Your task to perform on an android device: Search for "razer nari" on bestbuy, select the first entry, and add it to the cart. Image 0: 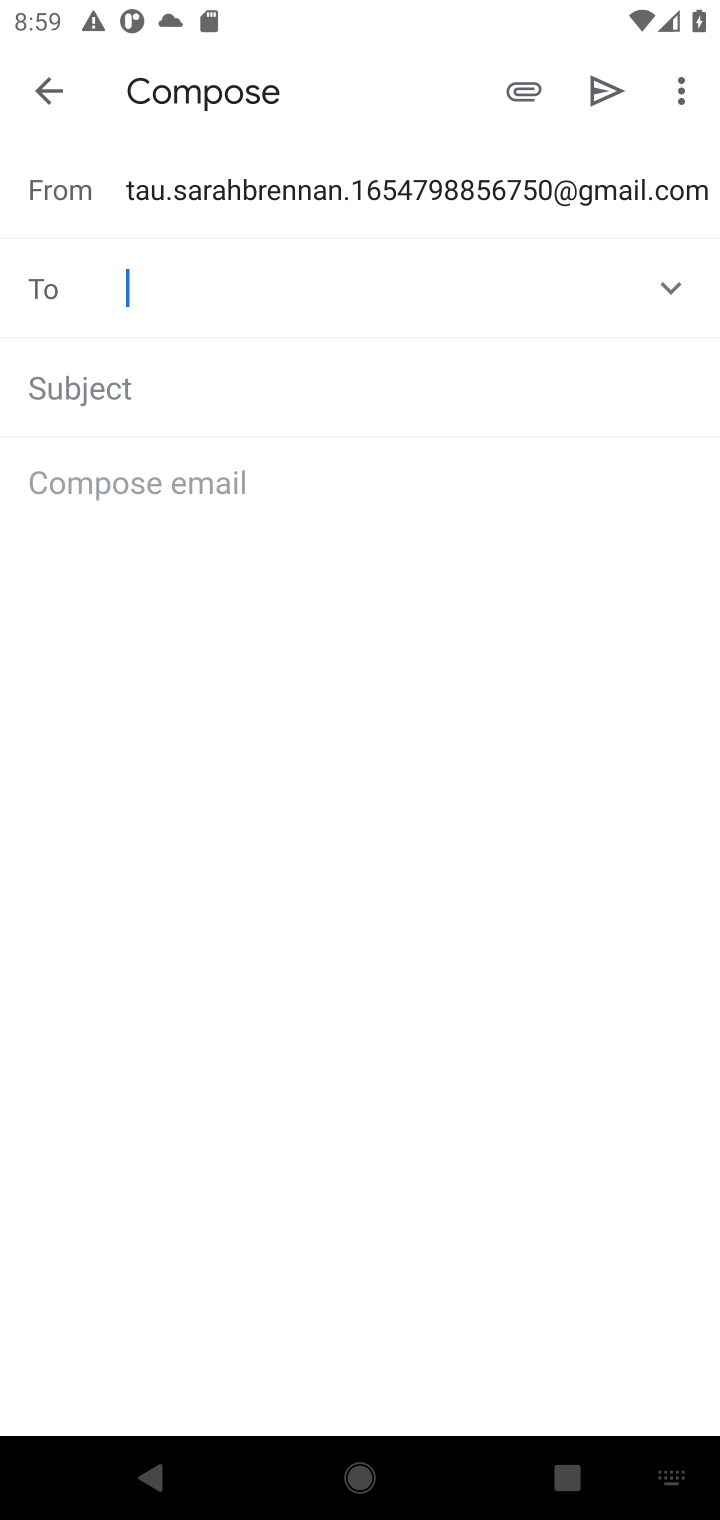
Step 0: press home button
Your task to perform on an android device: Search for "razer nari" on bestbuy, select the first entry, and add it to the cart. Image 1: 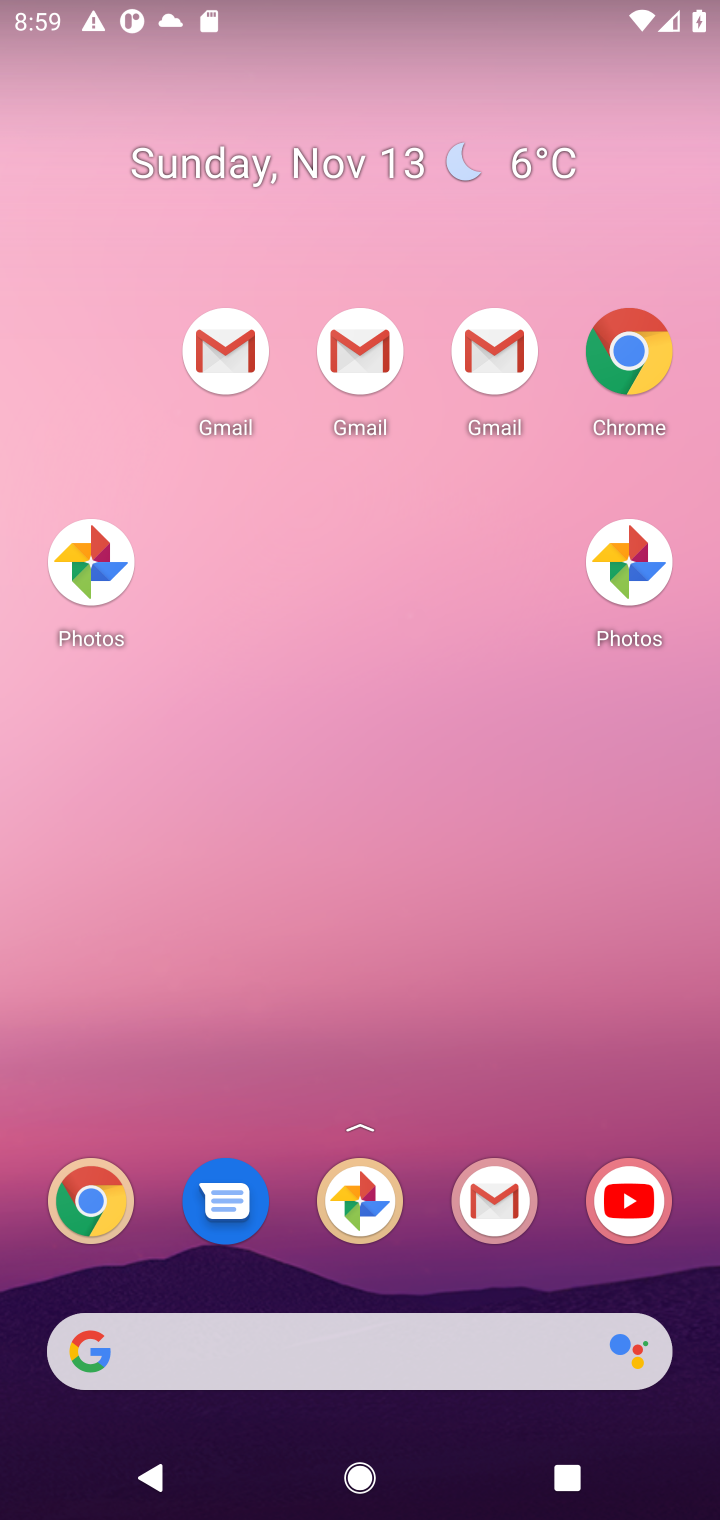
Step 1: drag from (425, 1296) to (405, 298)
Your task to perform on an android device: Search for "razer nari" on bestbuy, select the first entry, and add it to the cart. Image 2: 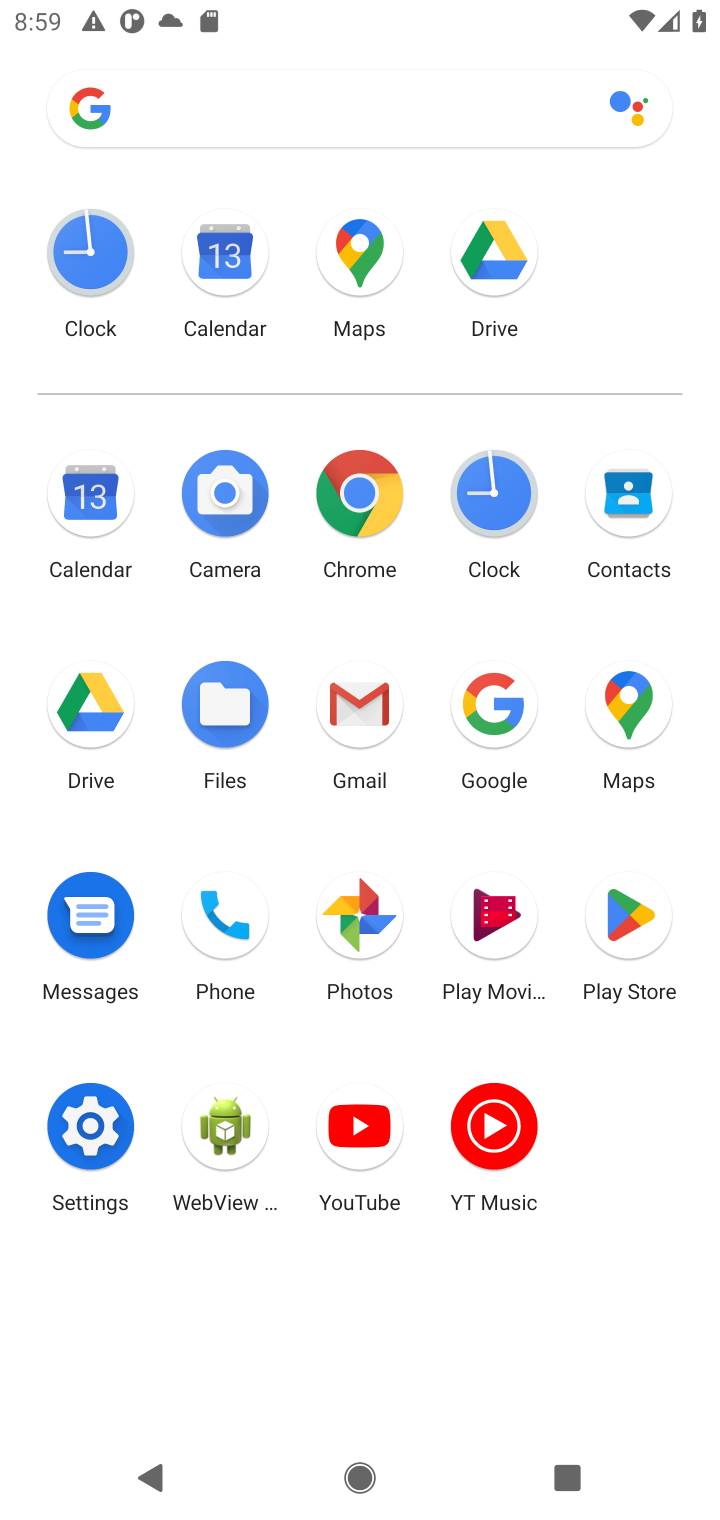
Step 2: click (344, 500)
Your task to perform on an android device: Search for "razer nari" on bestbuy, select the first entry, and add it to the cart. Image 3: 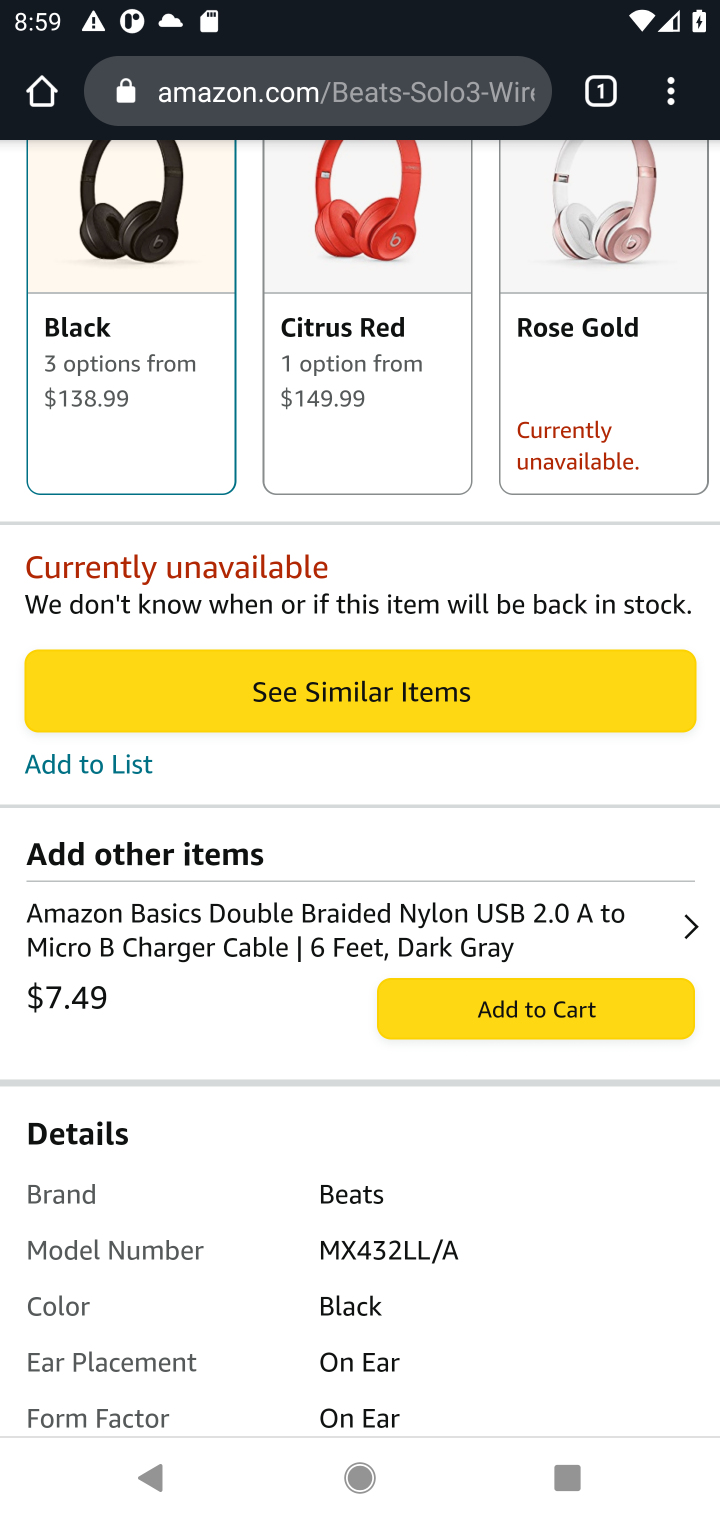
Step 3: drag from (484, 184) to (447, 925)
Your task to perform on an android device: Search for "razer nari" on bestbuy, select the first entry, and add it to the cart. Image 4: 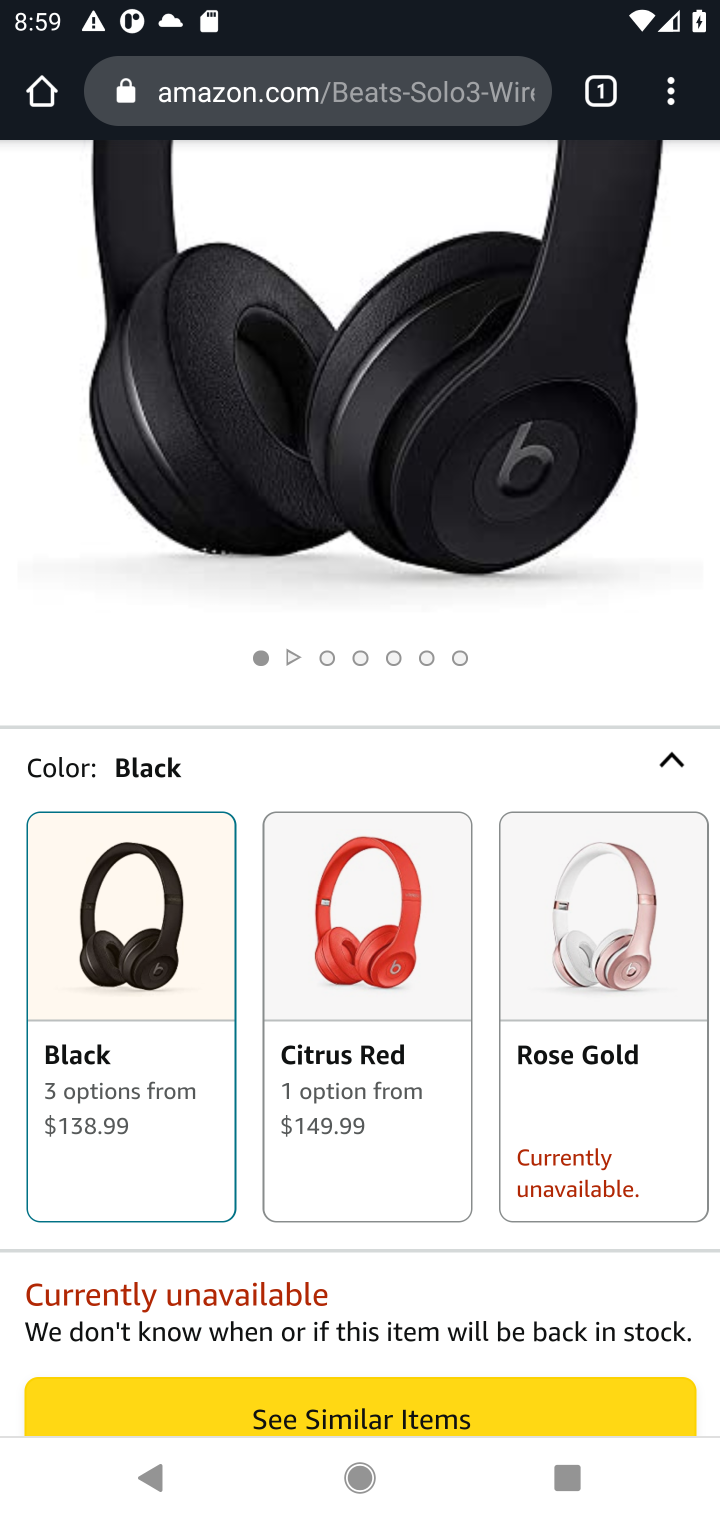
Step 4: click (386, 84)
Your task to perform on an android device: Search for "razer nari" on bestbuy, select the first entry, and add it to the cart. Image 5: 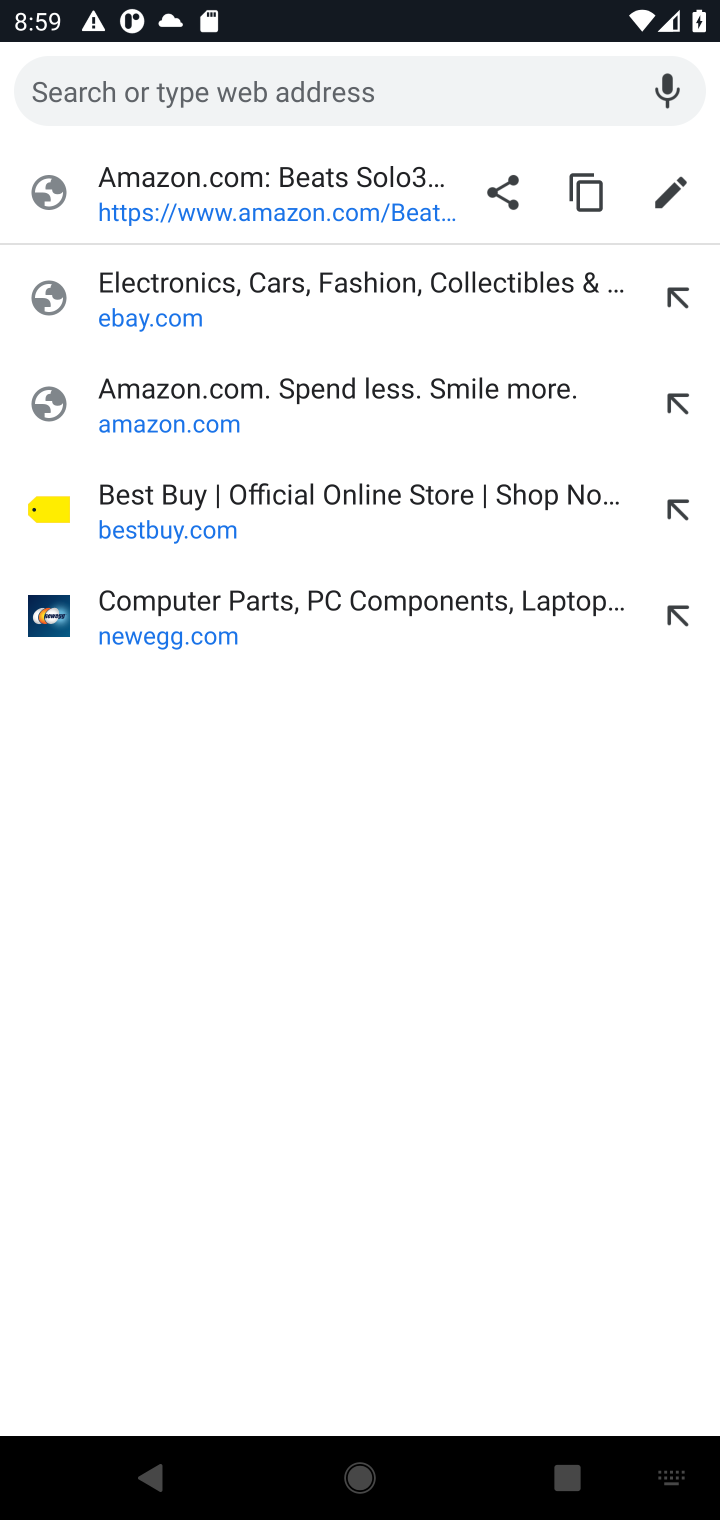
Step 5: type "bestbuy.com"
Your task to perform on an android device: Search for "razer nari" on bestbuy, select the first entry, and add it to the cart. Image 6: 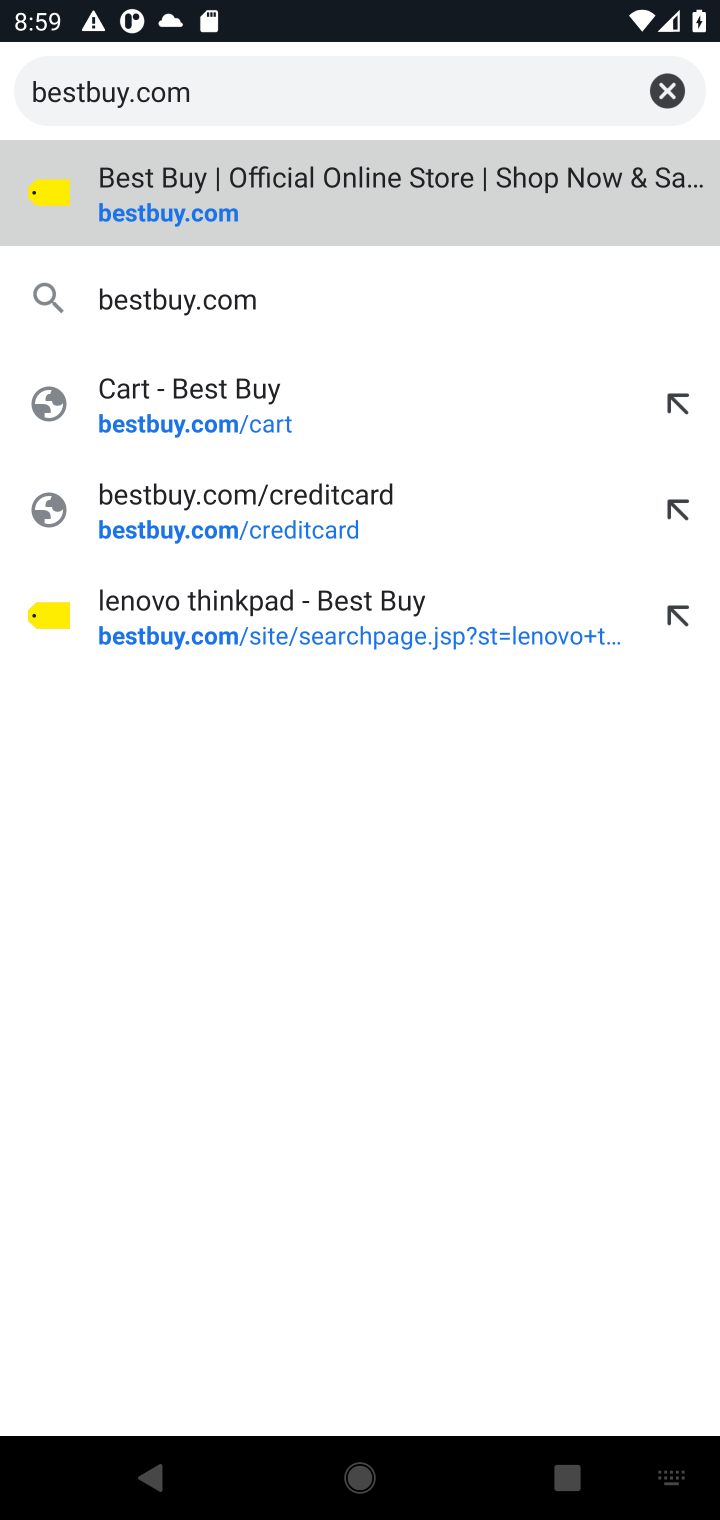
Step 6: press enter
Your task to perform on an android device: Search for "razer nari" on bestbuy, select the first entry, and add it to the cart. Image 7: 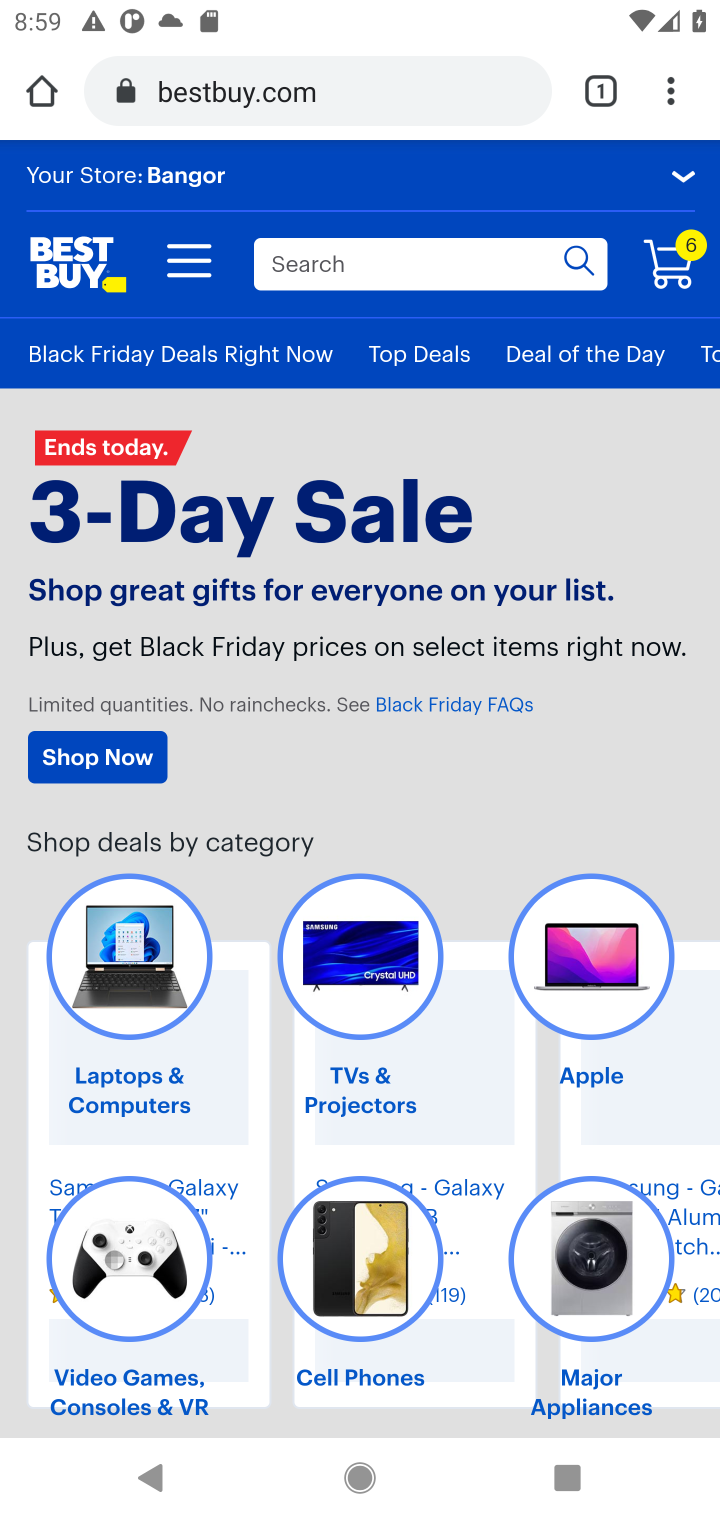
Step 7: click (446, 255)
Your task to perform on an android device: Search for "razer nari" on bestbuy, select the first entry, and add it to the cart. Image 8: 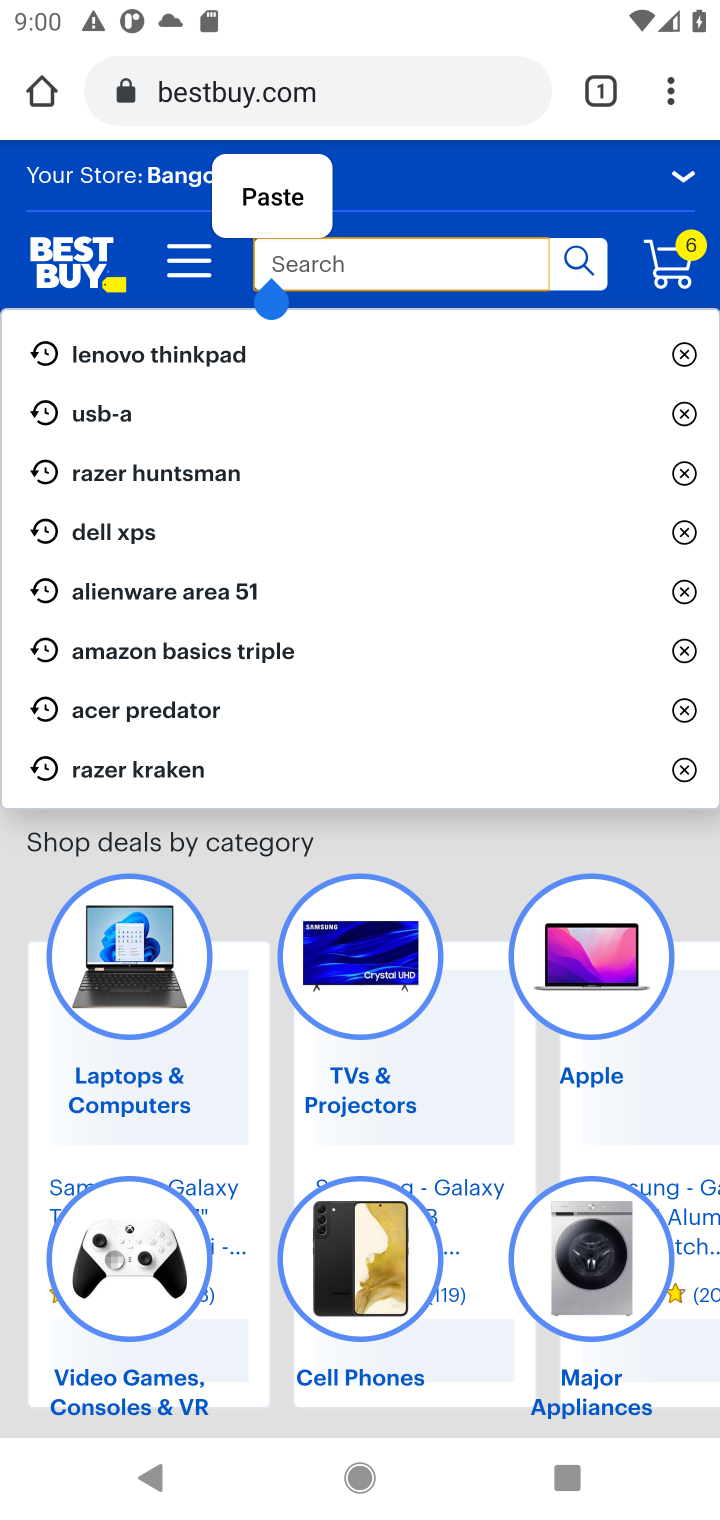
Step 8: type "razer nari"
Your task to perform on an android device: Search for "razer nari" on bestbuy, select the first entry, and add it to the cart. Image 9: 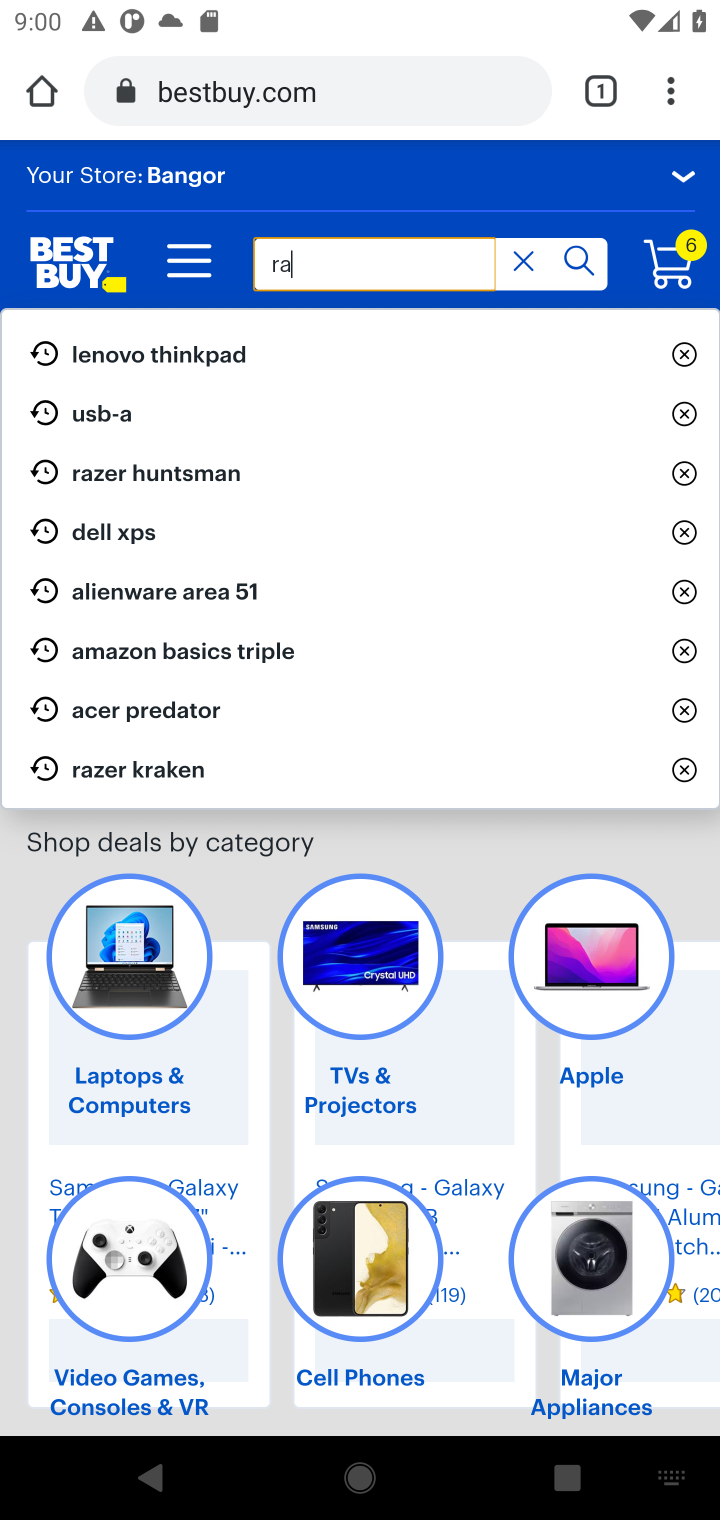
Step 9: press enter
Your task to perform on an android device: Search for "razer nari" on bestbuy, select the first entry, and add it to the cart. Image 10: 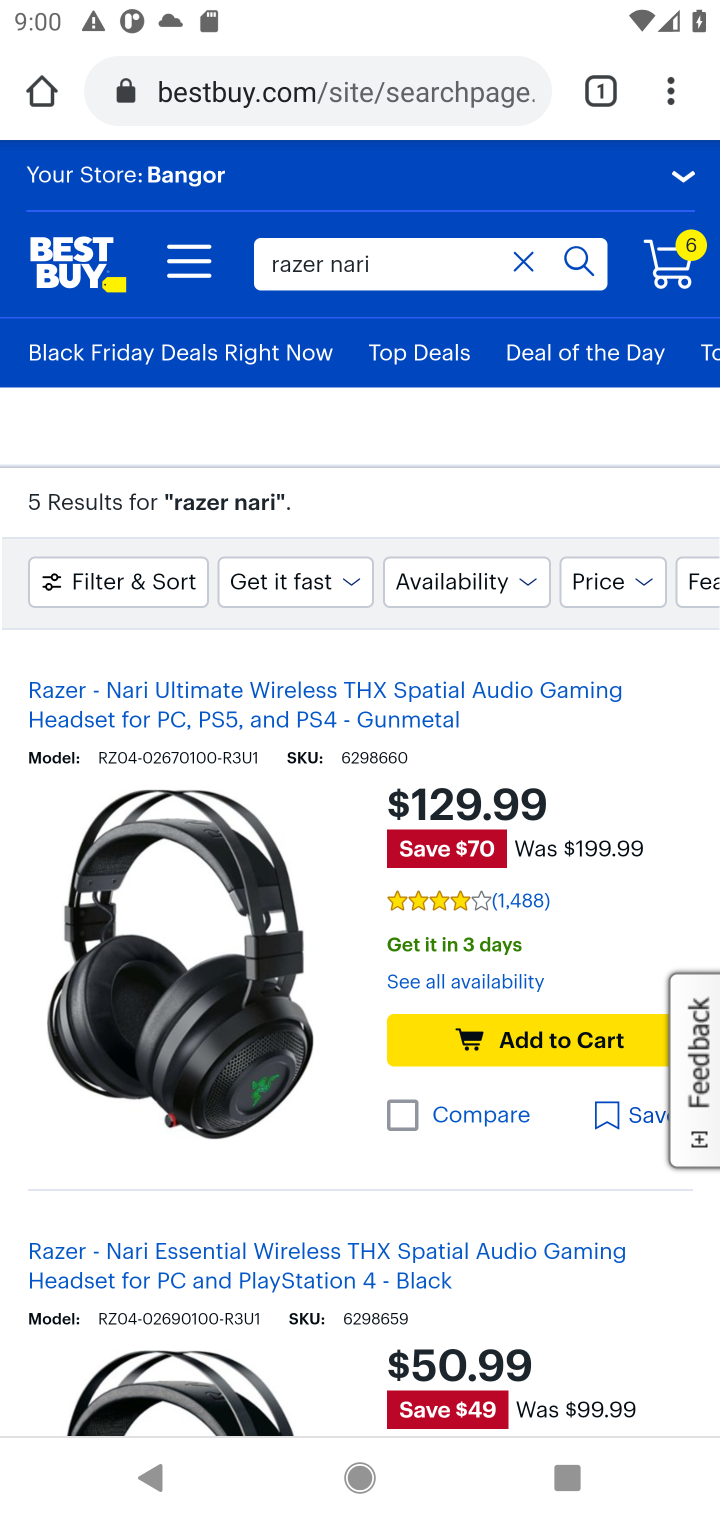
Step 10: click (587, 1039)
Your task to perform on an android device: Search for "razer nari" on bestbuy, select the first entry, and add it to the cart. Image 11: 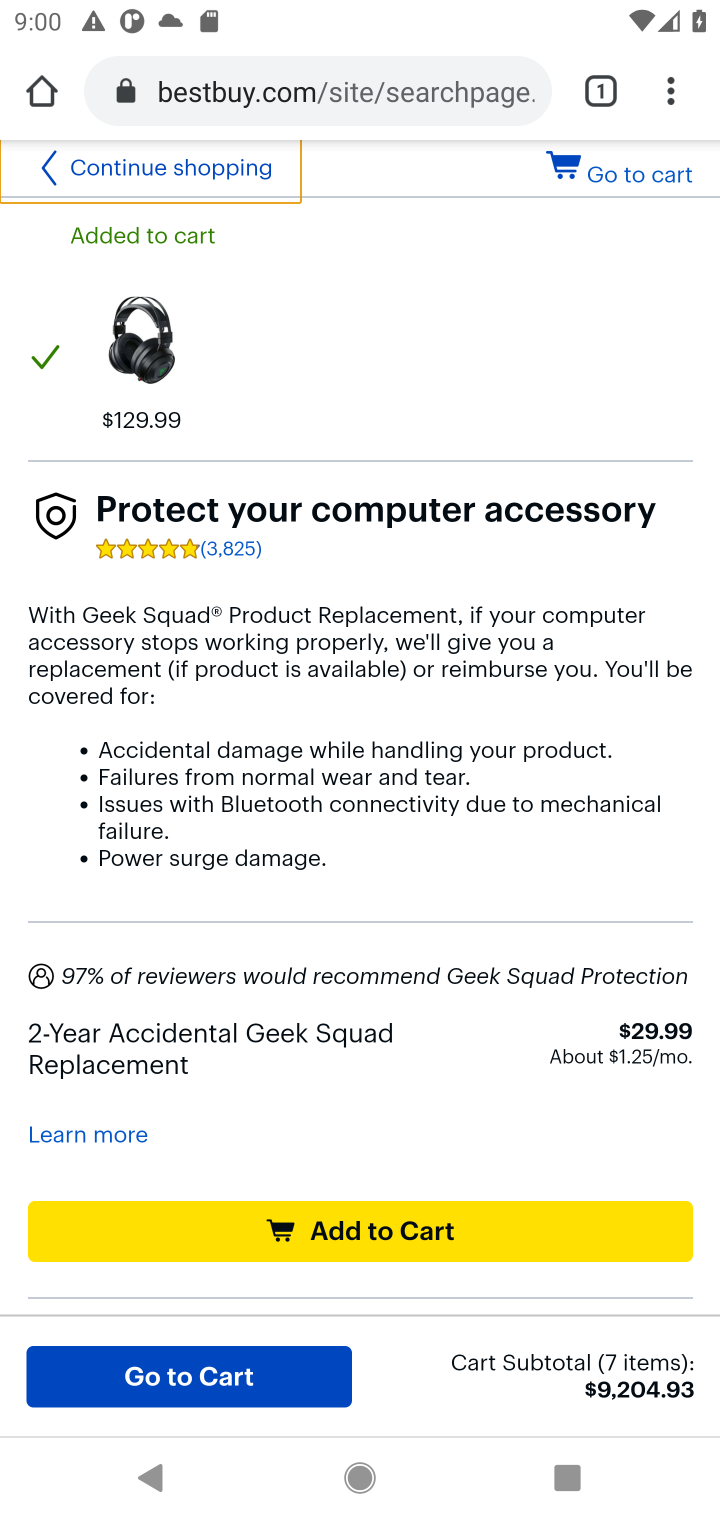
Step 11: task complete